Your task to perform on an android device: turn notification dots off Image 0: 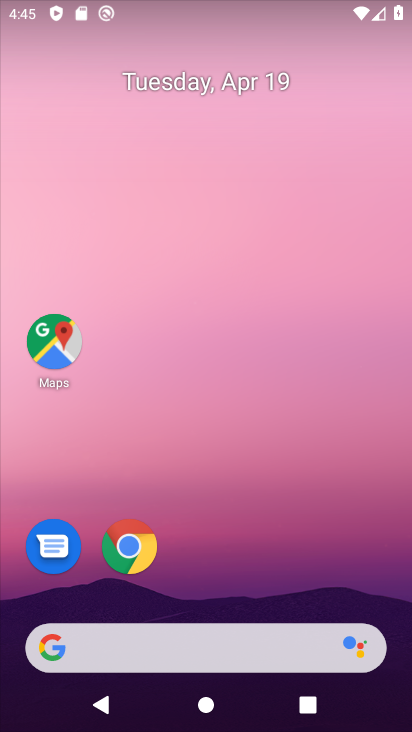
Step 0: drag from (330, 548) to (374, 12)
Your task to perform on an android device: turn notification dots off Image 1: 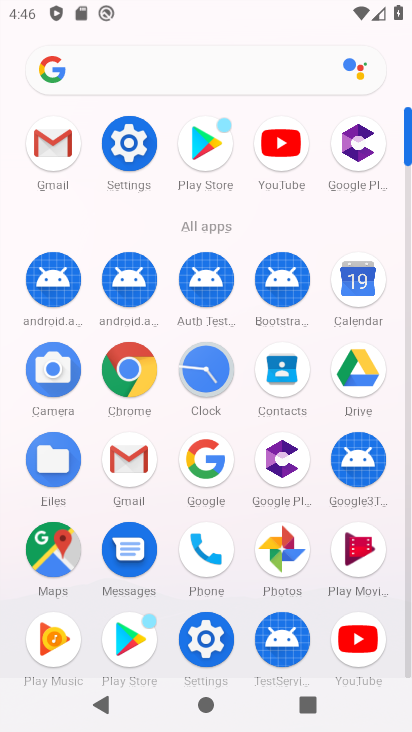
Step 1: click (204, 657)
Your task to perform on an android device: turn notification dots off Image 2: 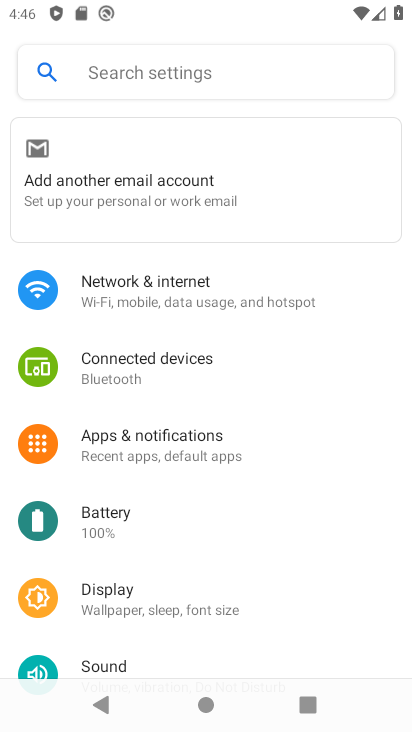
Step 2: drag from (227, 570) to (281, 237)
Your task to perform on an android device: turn notification dots off Image 3: 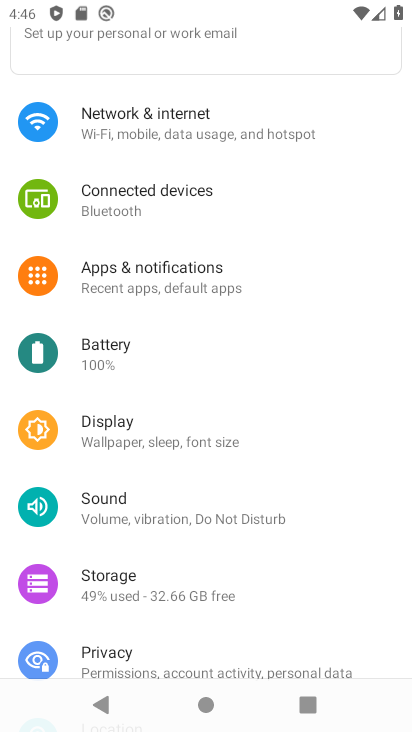
Step 3: click (203, 275)
Your task to perform on an android device: turn notification dots off Image 4: 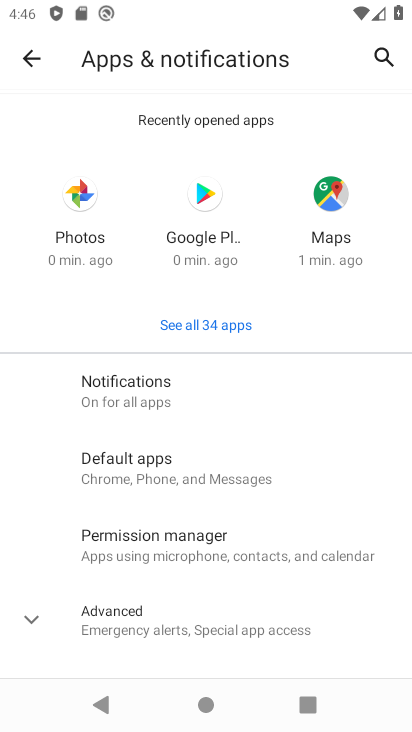
Step 4: drag from (230, 482) to (225, 291)
Your task to perform on an android device: turn notification dots off Image 5: 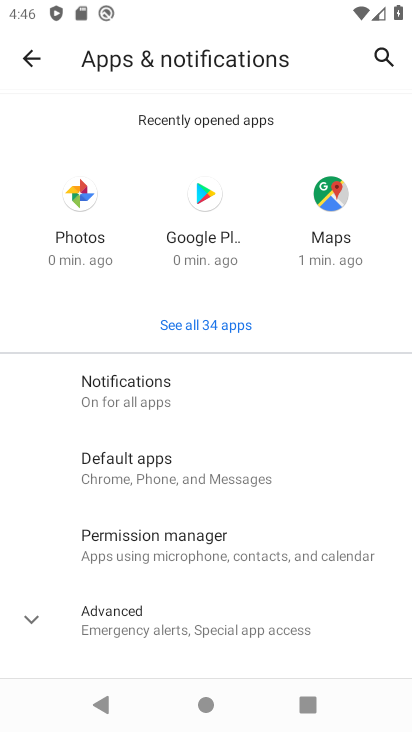
Step 5: click (115, 389)
Your task to perform on an android device: turn notification dots off Image 6: 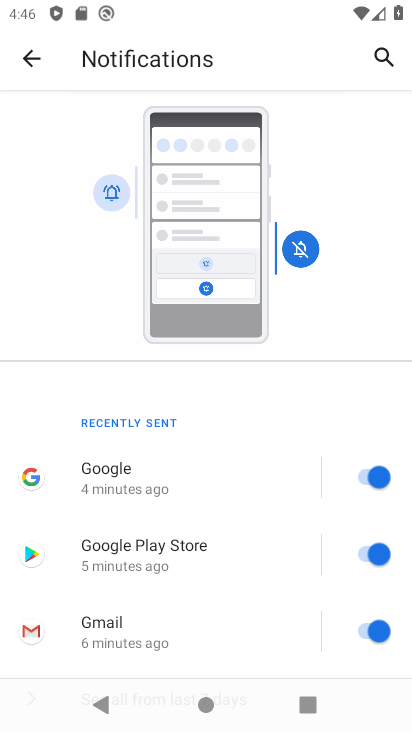
Step 6: drag from (160, 634) to (218, 273)
Your task to perform on an android device: turn notification dots off Image 7: 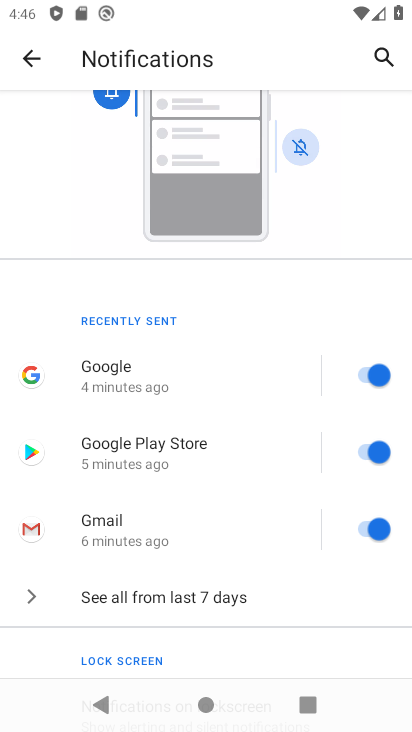
Step 7: drag from (169, 657) to (259, 258)
Your task to perform on an android device: turn notification dots off Image 8: 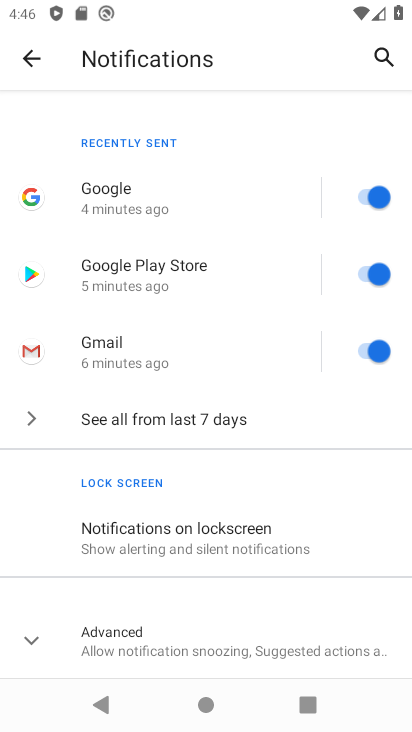
Step 8: drag from (174, 596) to (229, 288)
Your task to perform on an android device: turn notification dots off Image 9: 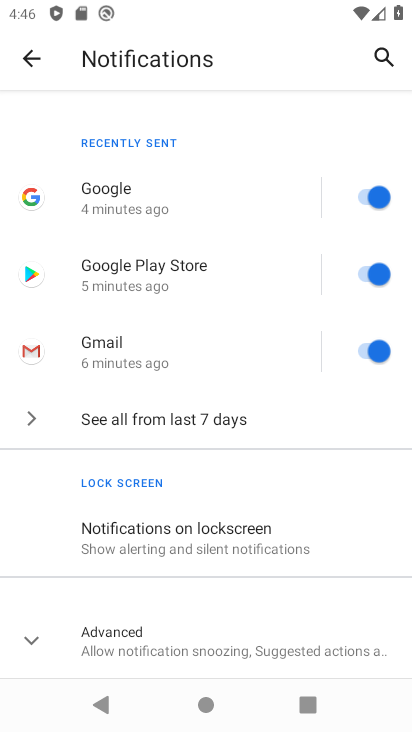
Step 9: click (163, 649)
Your task to perform on an android device: turn notification dots off Image 10: 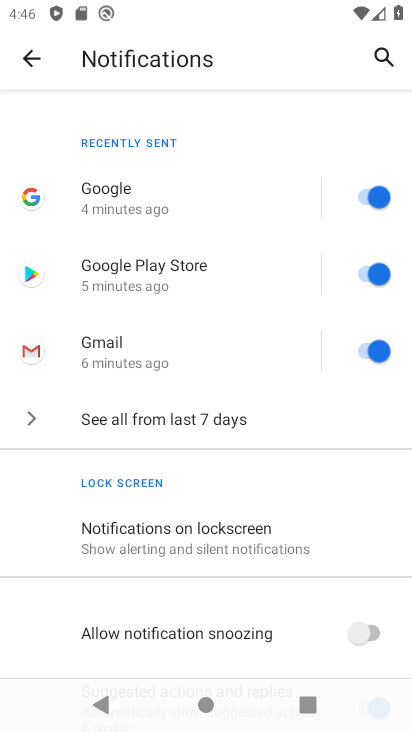
Step 10: drag from (293, 602) to (306, 297)
Your task to perform on an android device: turn notification dots off Image 11: 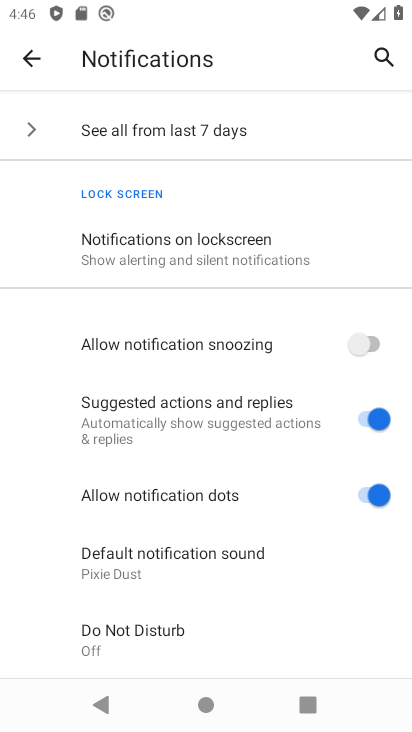
Step 11: drag from (271, 622) to (327, 349)
Your task to perform on an android device: turn notification dots off Image 12: 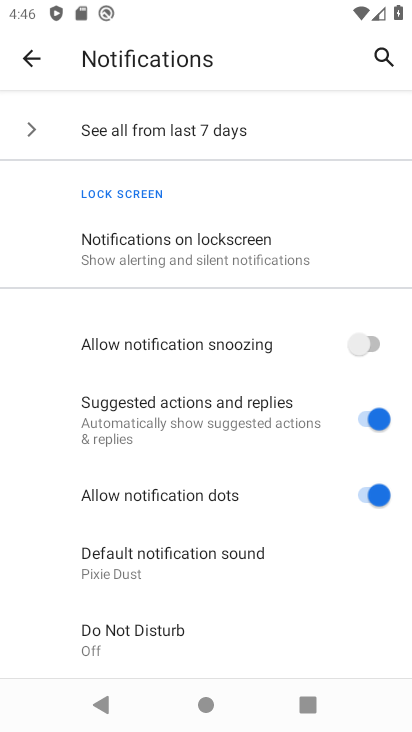
Step 12: click (385, 486)
Your task to perform on an android device: turn notification dots off Image 13: 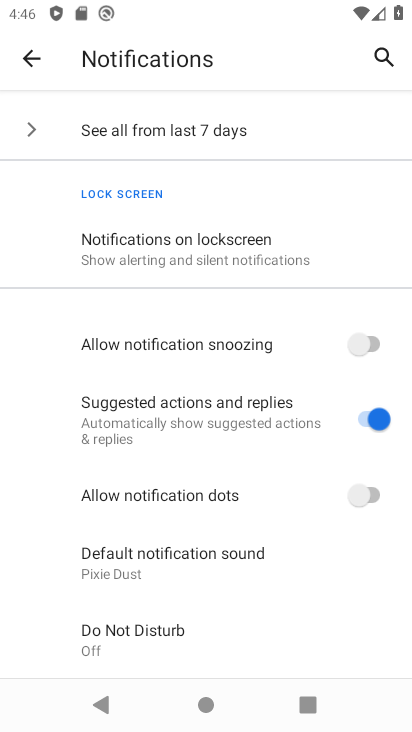
Step 13: task complete